Your task to perform on an android device: find which apps use the phone's location Image 0: 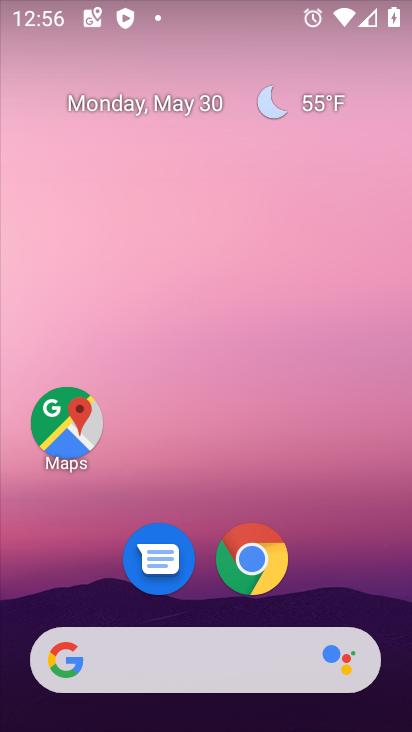
Step 0: drag from (204, 504) to (260, 25)
Your task to perform on an android device: find which apps use the phone's location Image 1: 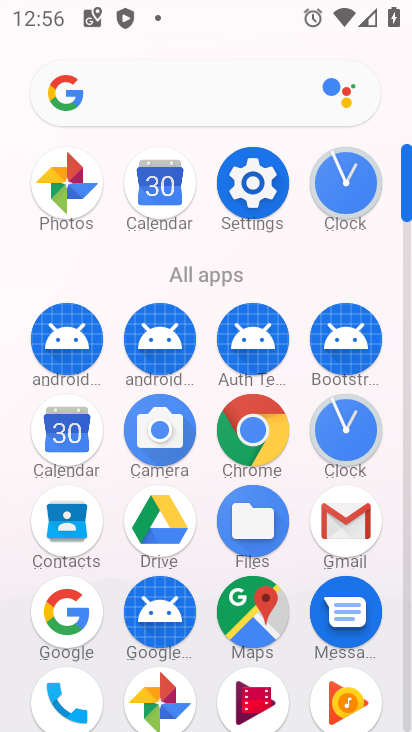
Step 1: click (247, 189)
Your task to perform on an android device: find which apps use the phone's location Image 2: 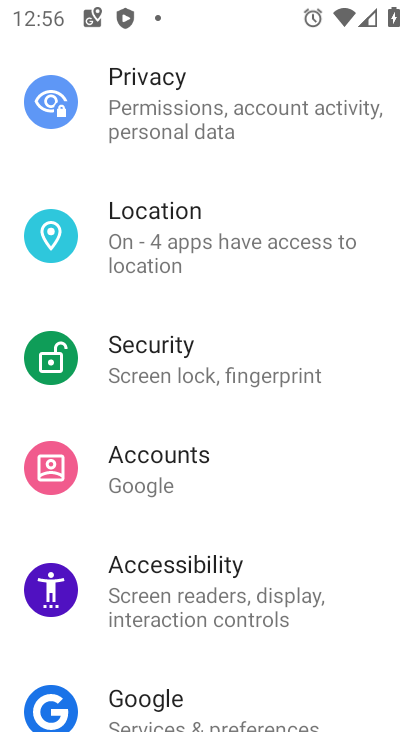
Step 2: click (148, 232)
Your task to perform on an android device: find which apps use the phone's location Image 3: 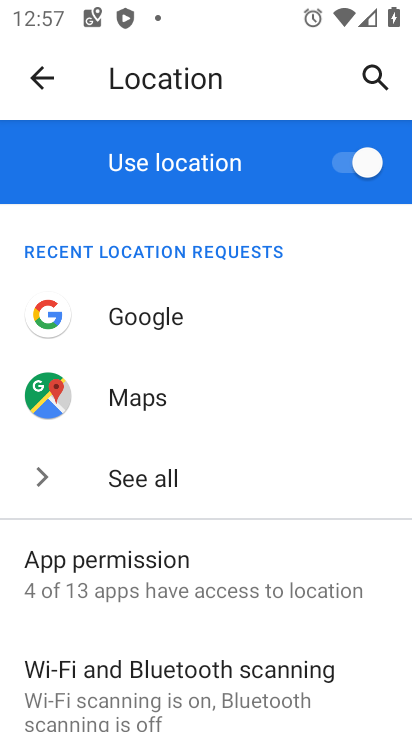
Step 3: drag from (128, 688) to (172, 424)
Your task to perform on an android device: find which apps use the phone's location Image 4: 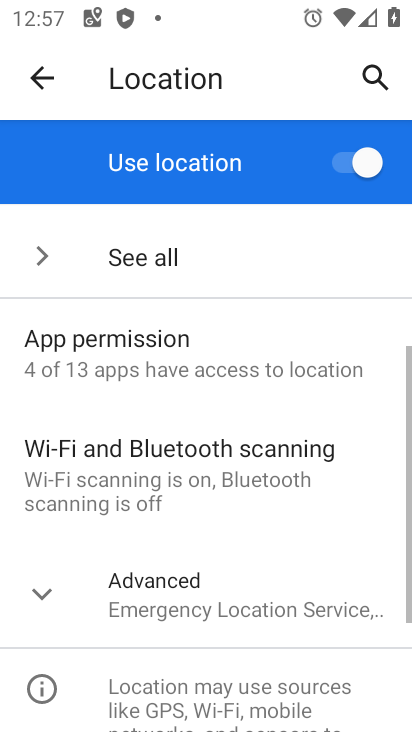
Step 4: click (105, 376)
Your task to perform on an android device: find which apps use the phone's location Image 5: 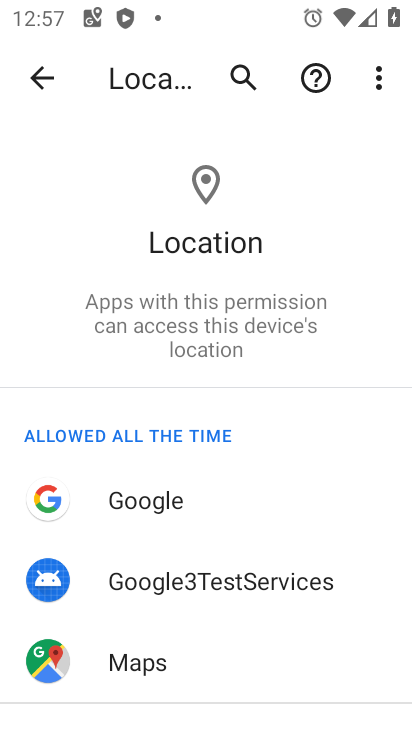
Step 5: task complete